Your task to perform on an android device: star an email in the gmail app Image 0: 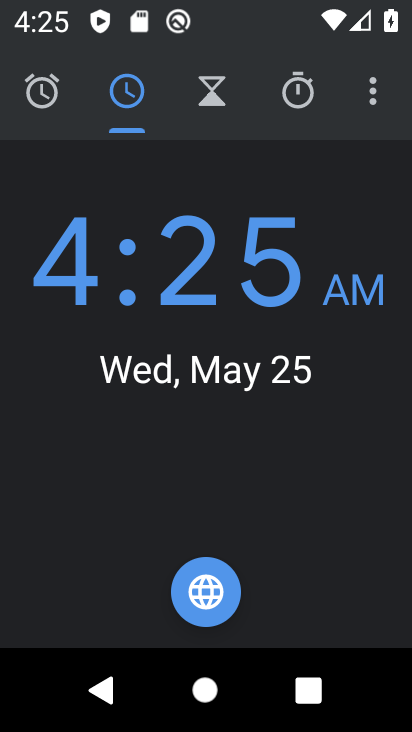
Step 0: press home button
Your task to perform on an android device: star an email in the gmail app Image 1: 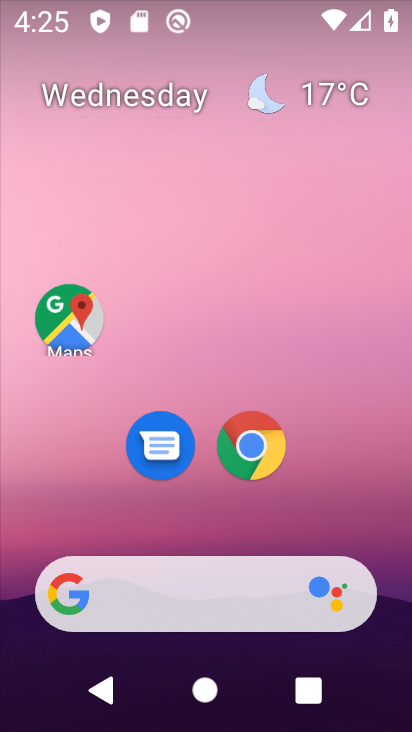
Step 1: drag from (341, 514) to (277, 116)
Your task to perform on an android device: star an email in the gmail app Image 2: 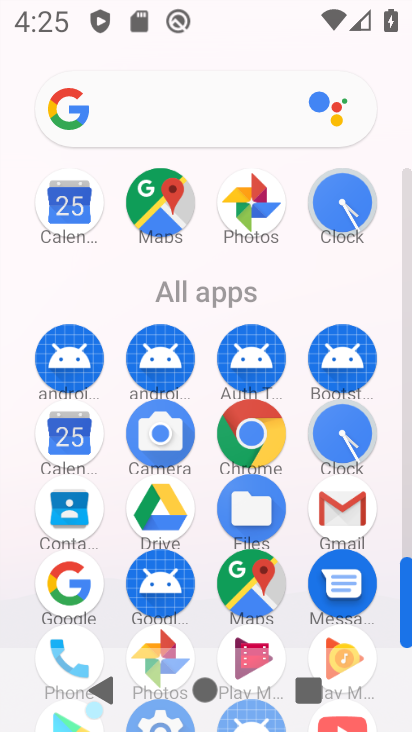
Step 2: click (348, 518)
Your task to perform on an android device: star an email in the gmail app Image 3: 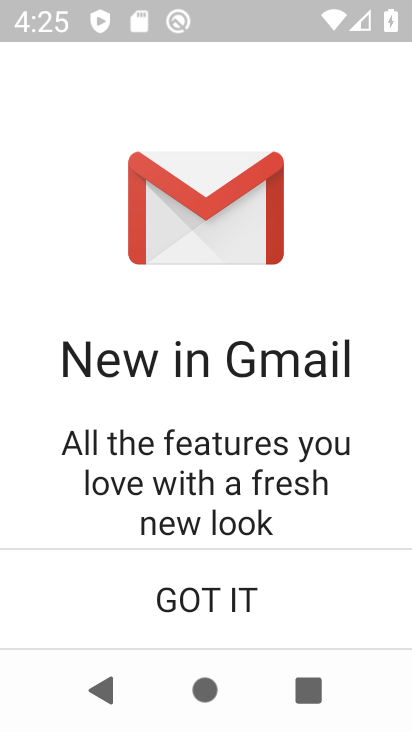
Step 3: click (231, 605)
Your task to perform on an android device: star an email in the gmail app Image 4: 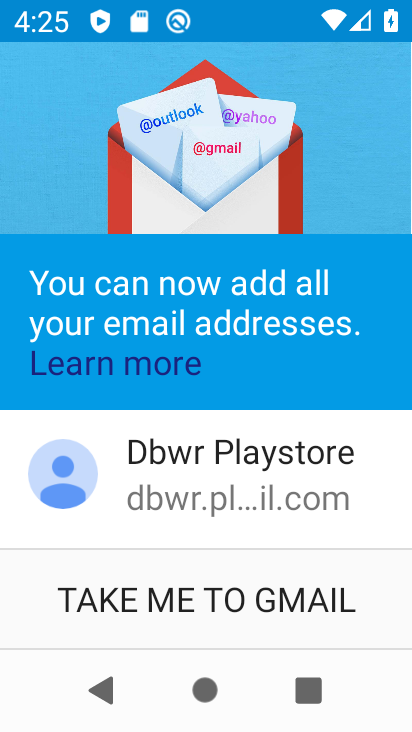
Step 4: click (231, 605)
Your task to perform on an android device: star an email in the gmail app Image 5: 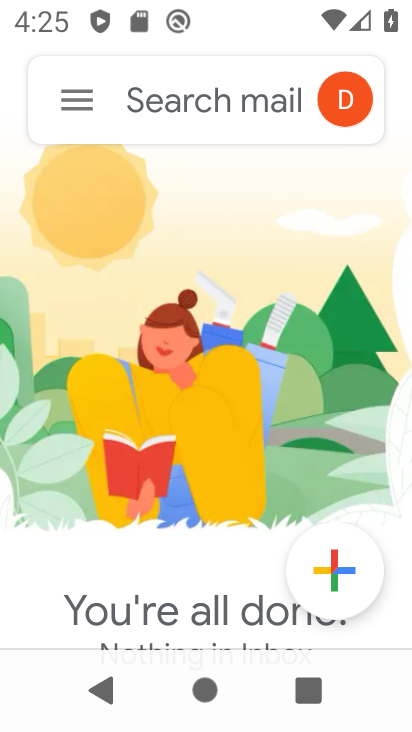
Step 5: click (79, 108)
Your task to perform on an android device: star an email in the gmail app Image 6: 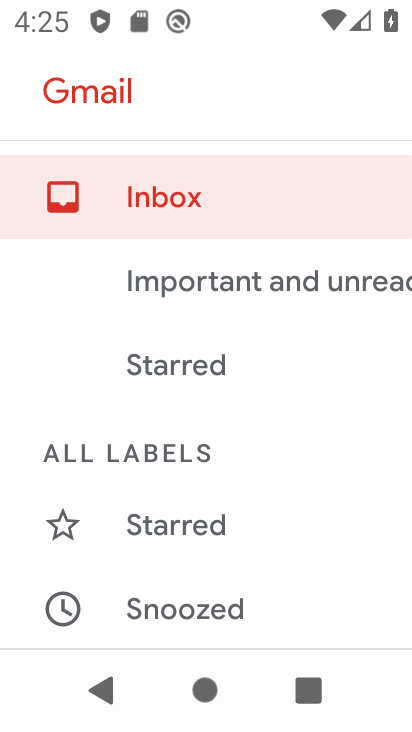
Step 6: click (162, 214)
Your task to perform on an android device: star an email in the gmail app Image 7: 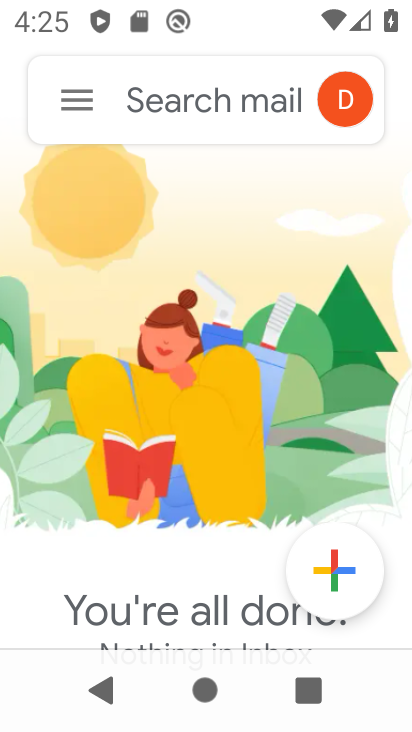
Step 7: task complete